Your task to perform on an android device: open a bookmark in the chrome app Image 0: 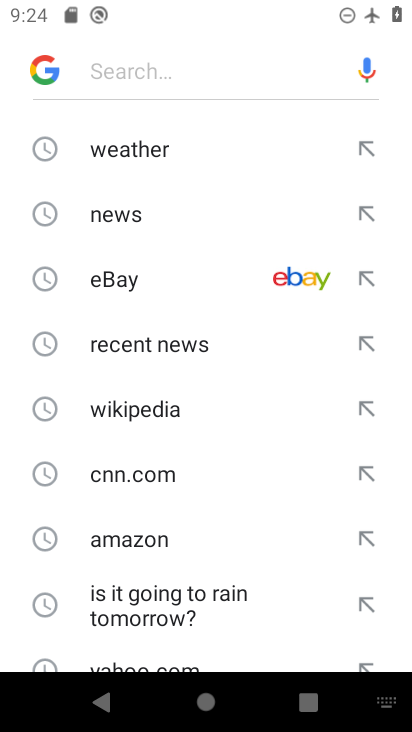
Step 0: press home button
Your task to perform on an android device: open a bookmark in the chrome app Image 1: 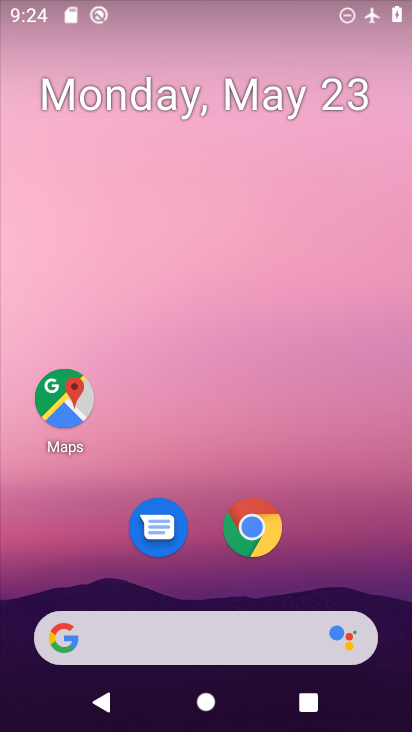
Step 1: click (258, 525)
Your task to perform on an android device: open a bookmark in the chrome app Image 2: 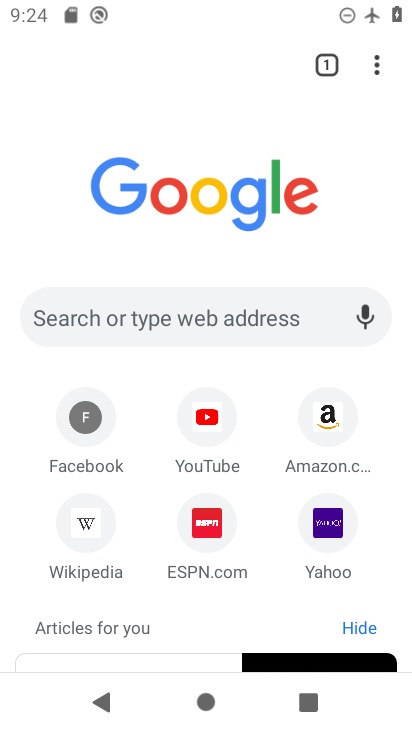
Step 2: click (374, 64)
Your task to perform on an android device: open a bookmark in the chrome app Image 3: 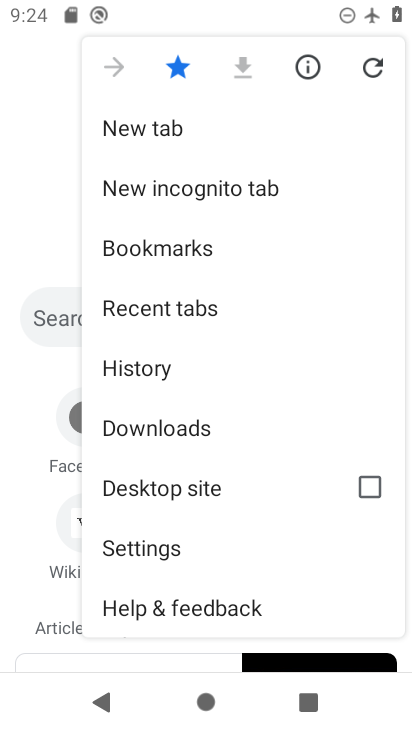
Step 3: click (217, 248)
Your task to perform on an android device: open a bookmark in the chrome app Image 4: 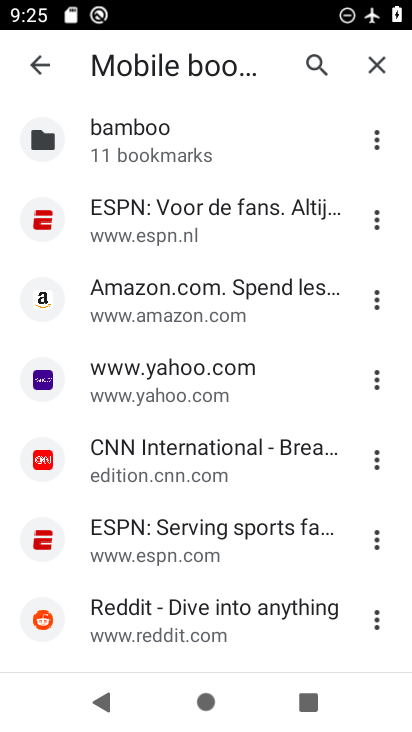
Step 4: click (204, 294)
Your task to perform on an android device: open a bookmark in the chrome app Image 5: 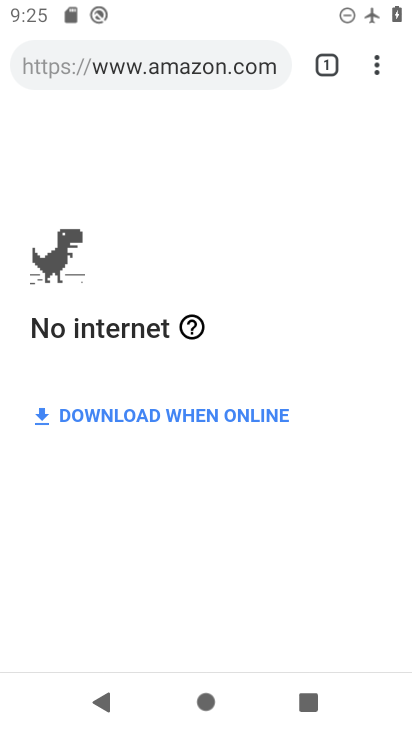
Step 5: task complete